Your task to perform on an android device: change your default location settings in chrome Image 0: 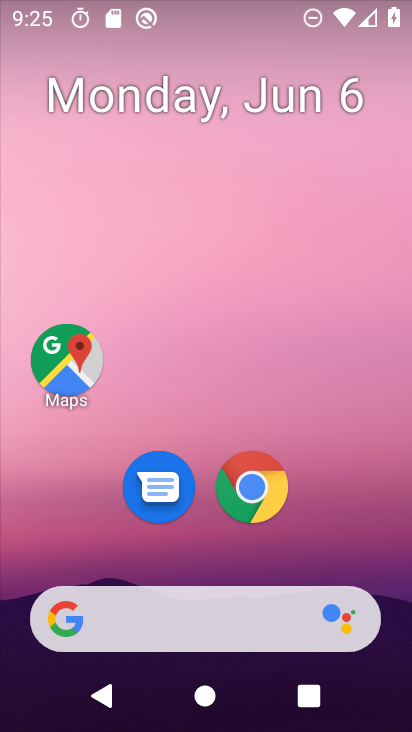
Step 0: drag from (385, 641) to (300, 67)
Your task to perform on an android device: change your default location settings in chrome Image 1: 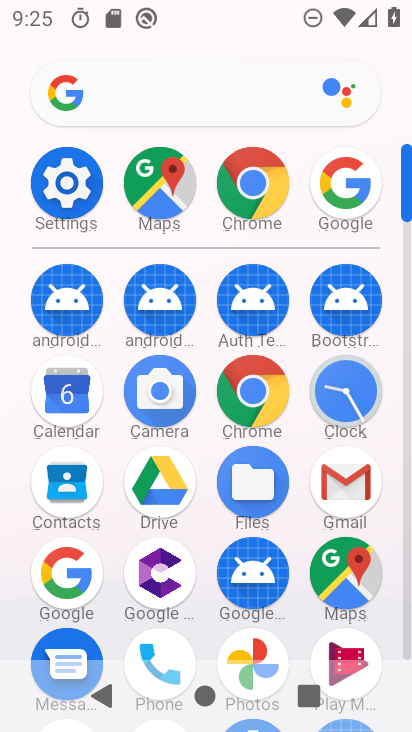
Step 1: click (265, 372)
Your task to perform on an android device: change your default location settings in chrome Image 2: 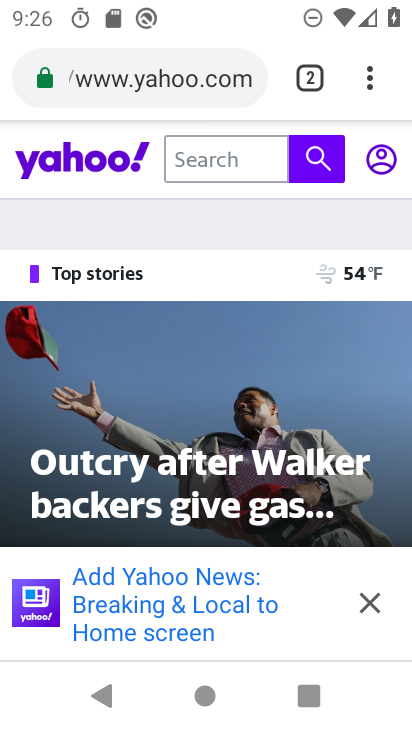
Step 2: press home button
Your task to perform on an android device: change your default location settings in chrome Image 3: 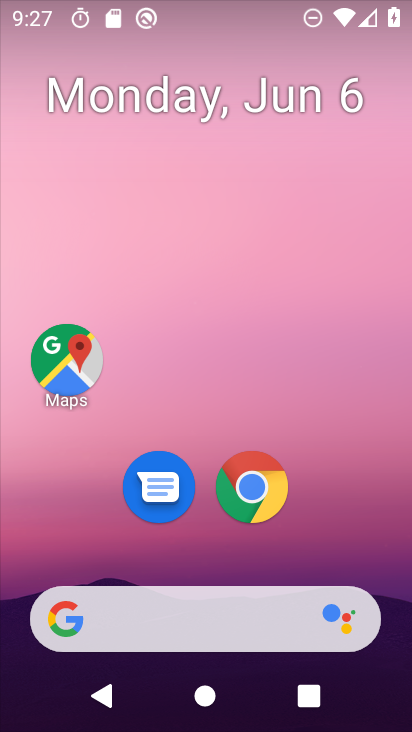
Step 3: drag from (396, 627) to (372, 37)
Your task to perform on an android device: change your default location settings in chrome Image 4: 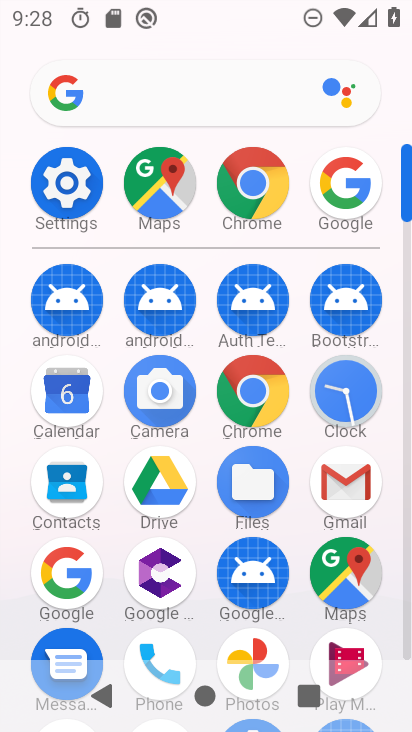
Step 4: click (233, 383)
Your task to perform on an android device: change your default location settings in chrome Image 5: 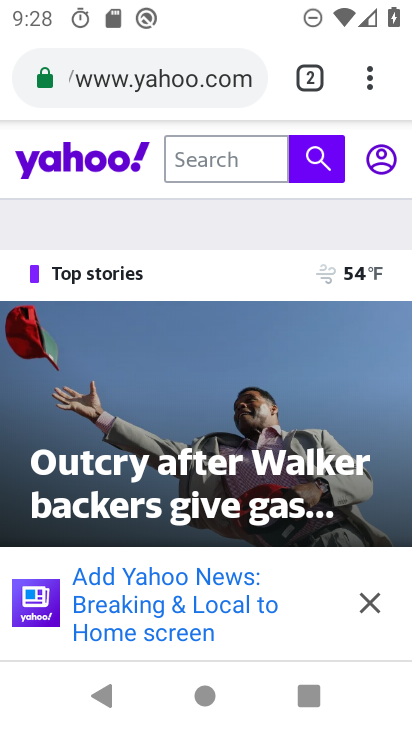
Step 5: press back button
Your task to perform on an android device: change your default location settings in chrome Image 6: 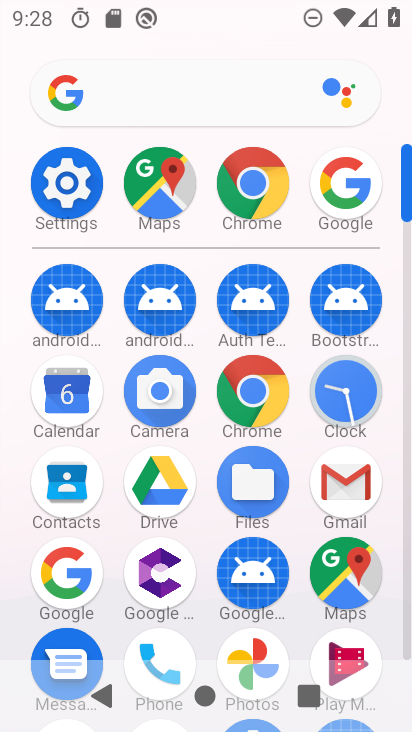
Step 6: click (241, 185)
Your task to perform on an android device: change your default location settings in chrome Image 7: 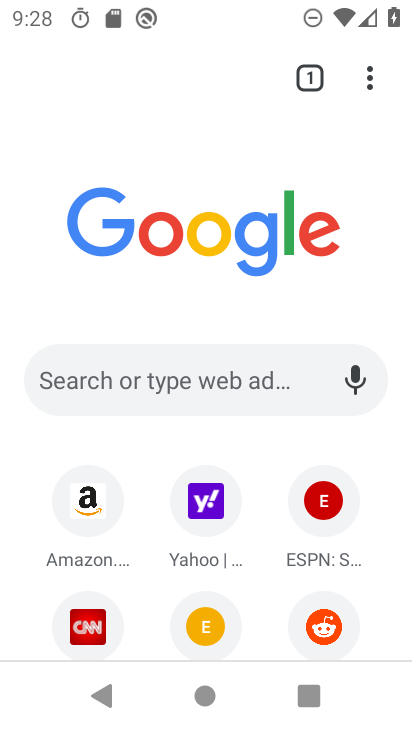
Step 7: click (367, 62)
Your task to perform on an android device: change your default location settings in chrome Image 8: 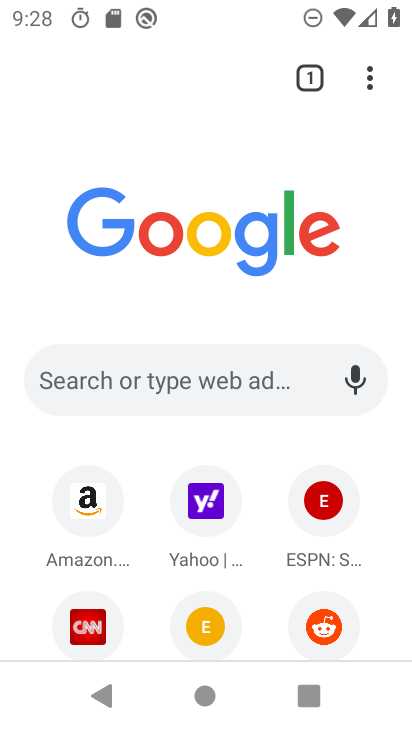
Step 8: click (373, 84)
Your task to perform on an android device: change your default location settings in chrome Image 9: 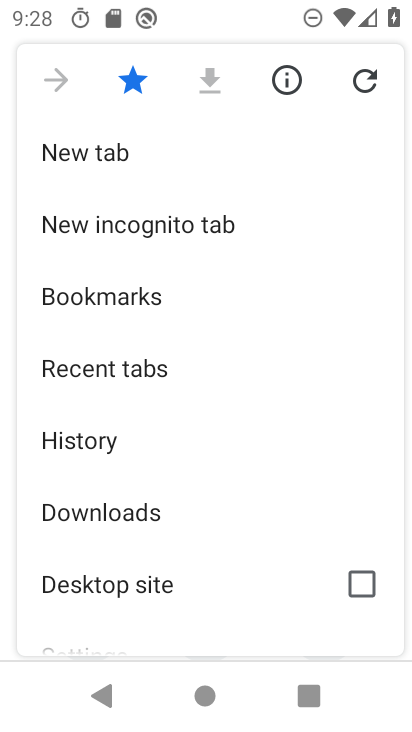
Step 9: drag from (106, 587) to (217, 215)
Your task to perform on an android device: change your default location settings in chrome Image 10: 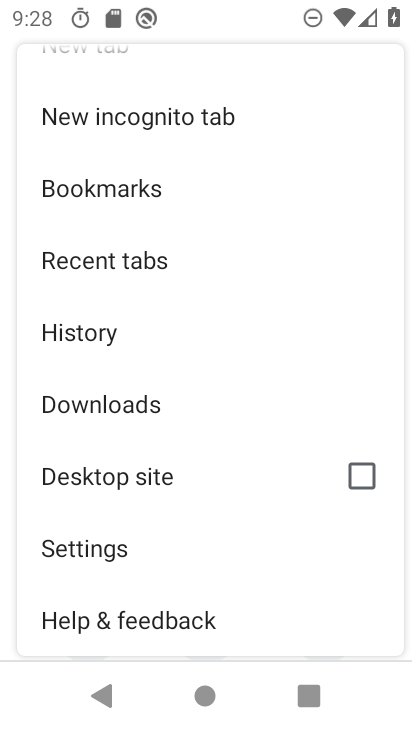
Step 10: click (102, 560)
Your task to perform on an android device: change your default location settings in chrome Image 11: 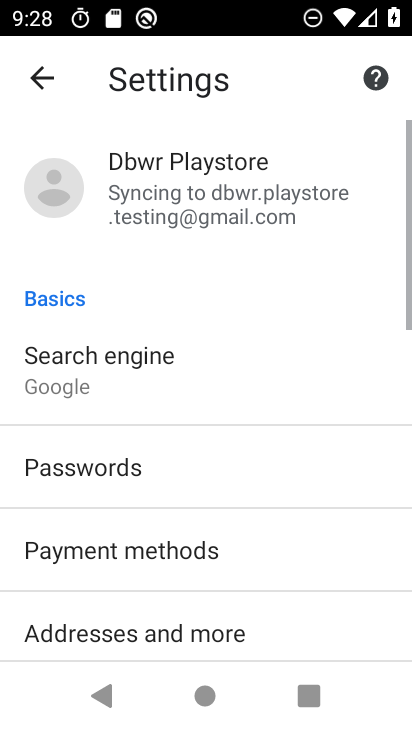
Step 11: click (172, 362)
Your task to perform on an android device: change your default location settings in chrome Image 12: 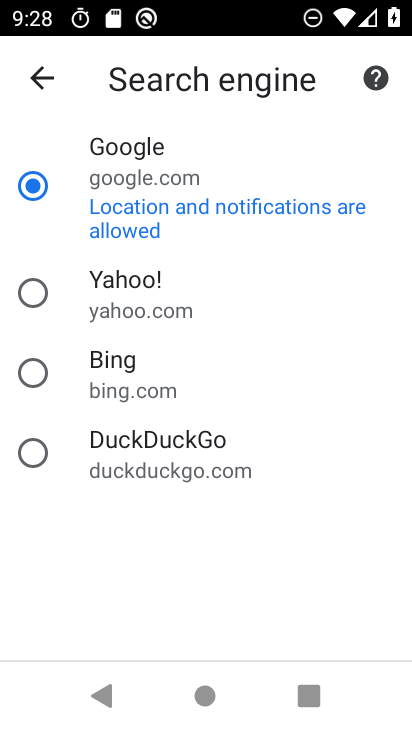
Step 12: click (153, 388)
Your task to perform on an android device: change your default location settings in chrome Image 13: 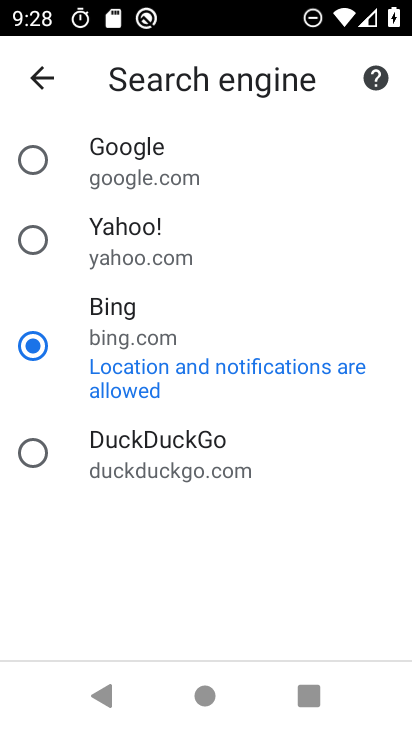
Step 13: task complete